Your task to perform on an android device: move a message to another label in the gmail app Image 0: 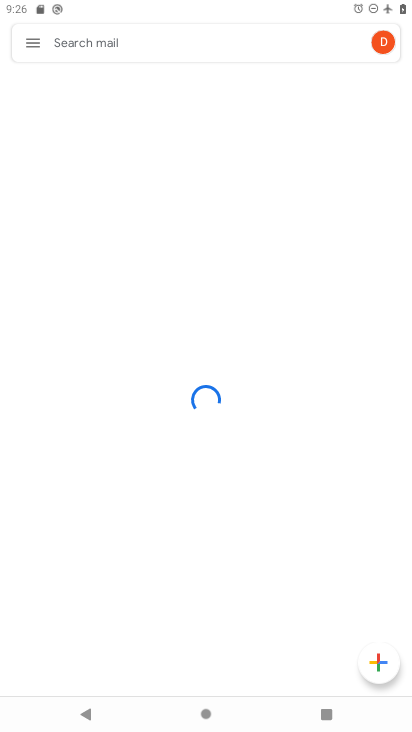
Step 0: press home button
Your task to perform on an android device: move a message to another label in the gmail app Image 1: 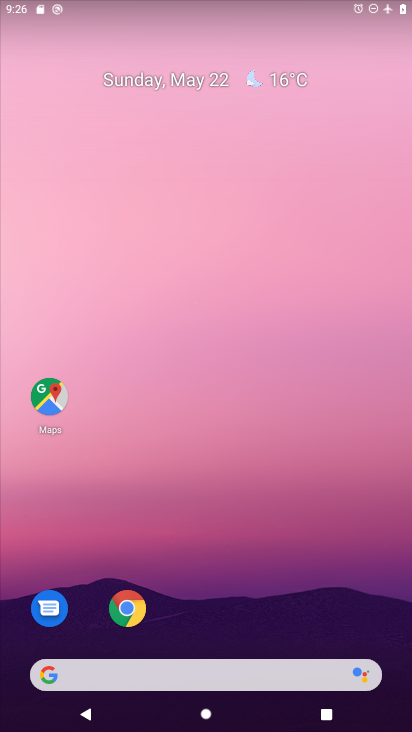
Step 1: drag from (221, 727) to (214, 164)
Your task to perform on an android device: move a message to another label in the gmail app Image 2: 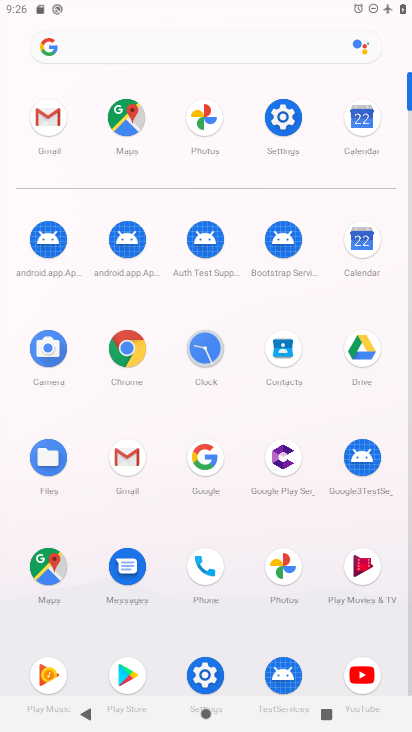
Step 2: click (130, 456)
Your task to perform on an android device: move a message to another label in the gmail app Image 3: 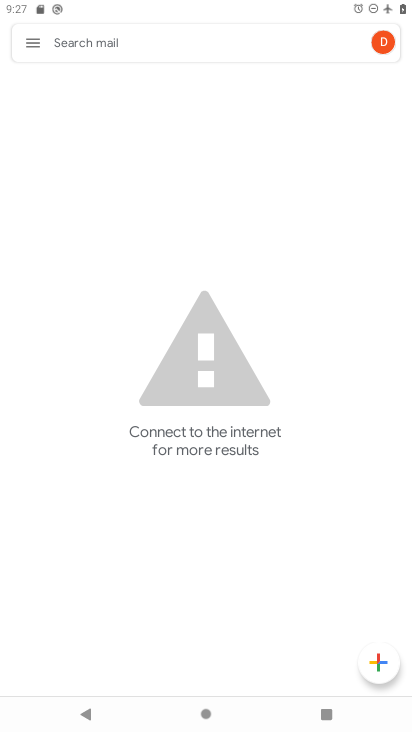
Step 3: click (28, 39)
Your task to perform on an android device: move a message to another label in the gmail app Image 4: 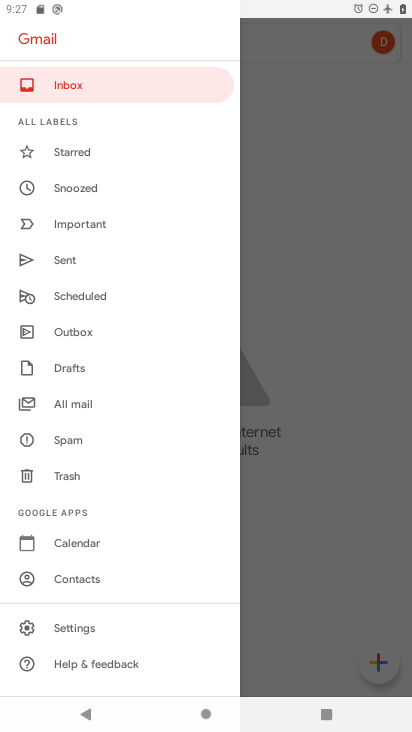
Step 4: drag from (73, 85) to (123, 389)
Your task to perform on an android device: move a message to another label in the gmail app Image 5: 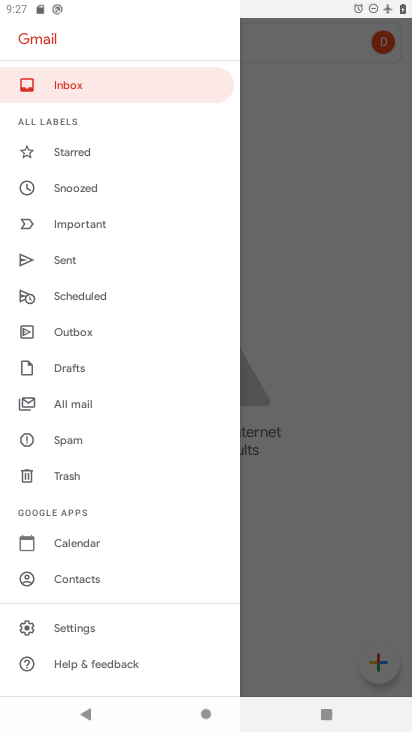
Step 5: click (88, 89)
Your task to perform on an android device: move a message to another label in the gmail app Image 6: 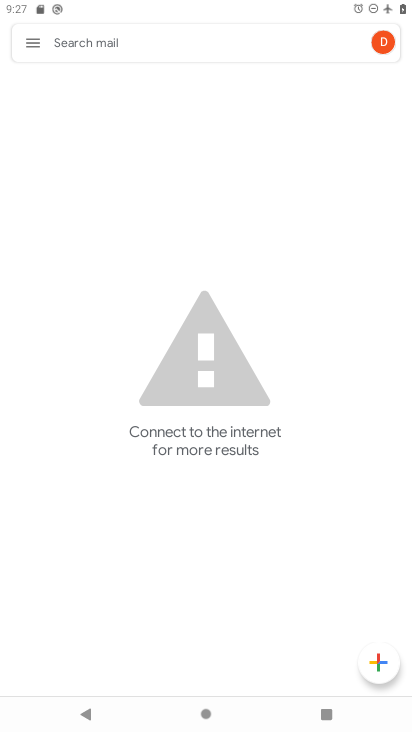
Step 6: task complete